Your task to perform on an android device: Open the stopwatch Image 0: 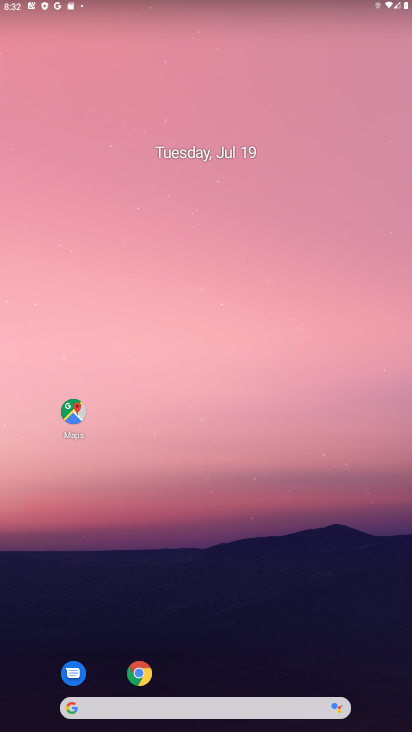
Step 0: drag from (258, 670) to (255, 157)
Your task to perform on an android device: Open the stopwatch Image 1: 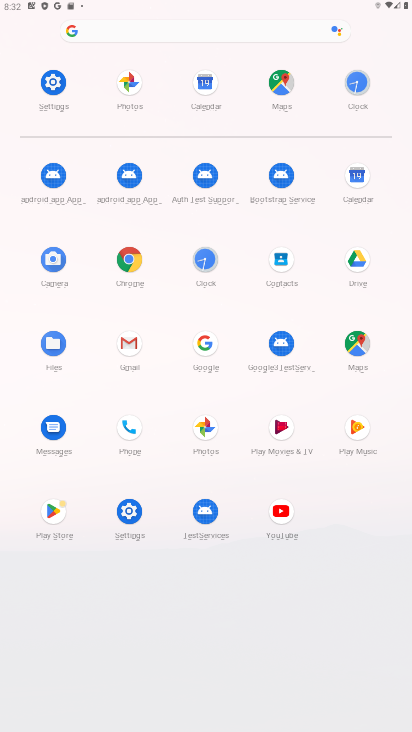
Step 1: click (363, 106)
Your task to perform on an android device: Open the stopwatch Image 2: 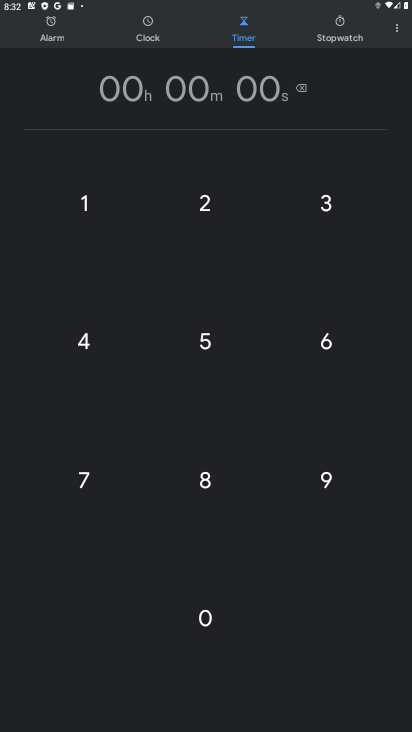
Step 2: click (328, 29)
Your task to perform on an android device: Open the stopwatch Image 3: 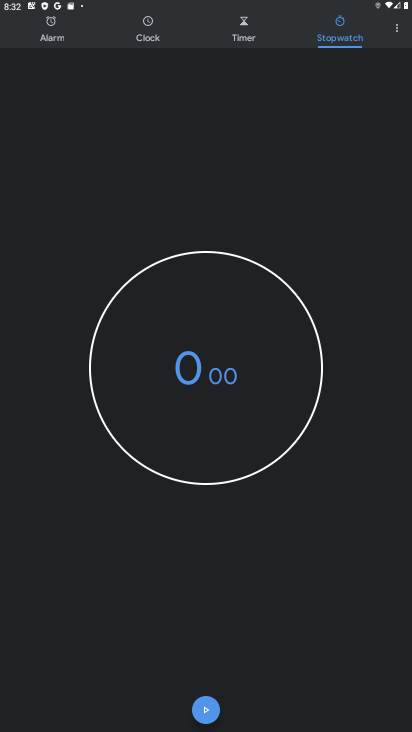
Step 3: task complete